Your task to perform on an android device: change timer sound Image 0: 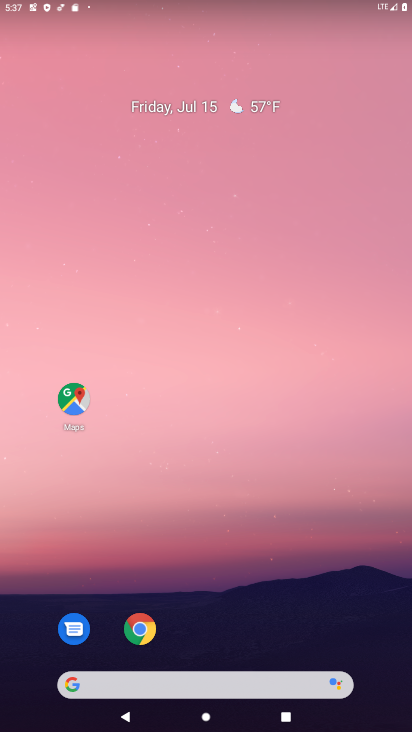
Step 0: press home button
Your task to perform on an android device: change timer sound Image 1: 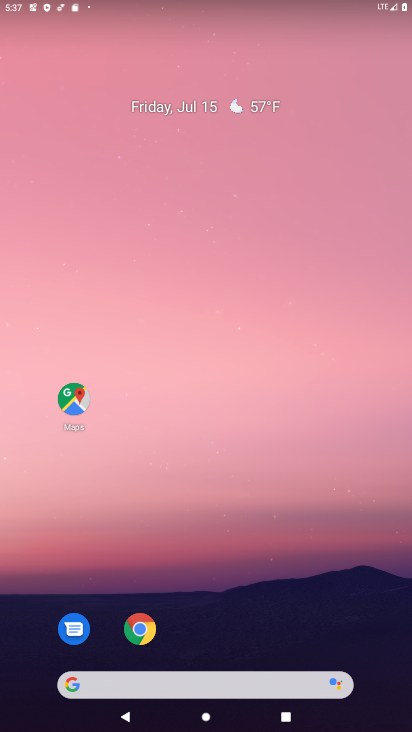
Step 1: press home button
Your task to perform on an android device: change timer sound Image 2: 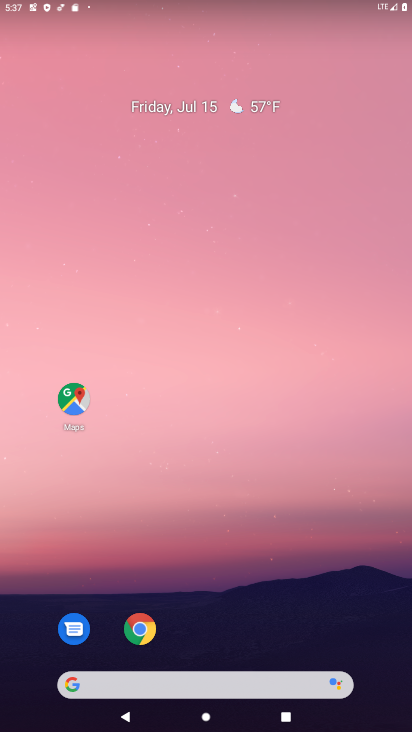
Step 2: drag from (337, 579) to (345, 8)
Your task to perform on an android device: change timer sound Image 3: 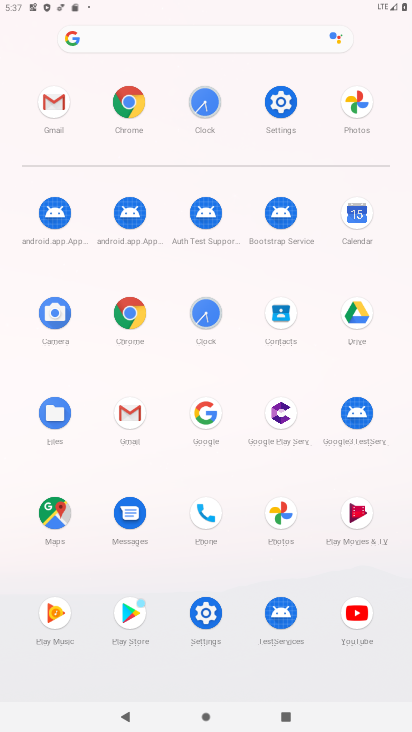
Step 3: click (199, 311)
Your task to perform on an android device: change timer sound Image 4: 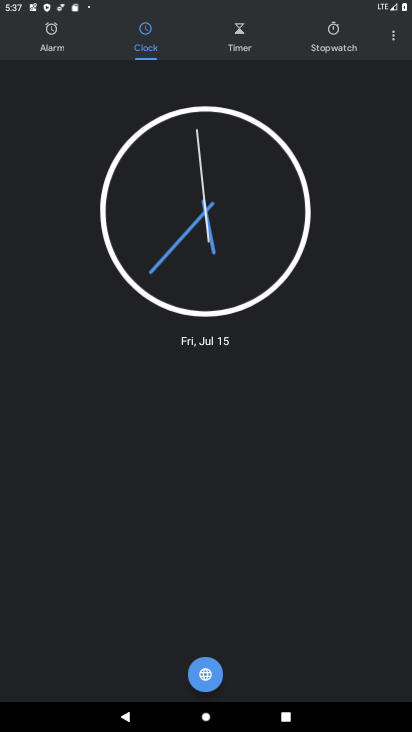
Step 4: click (396, 42)
Your task to perform on an android device: change timer sound Image 5: 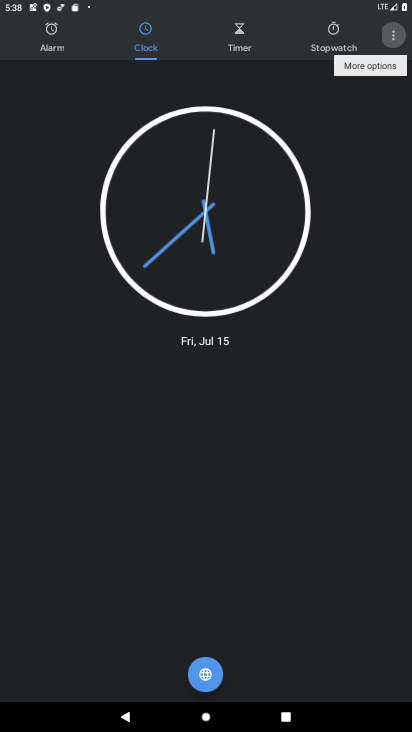
Step 5: click (396, 42)
Your task to perform on an android device: change timer sound Image 6: 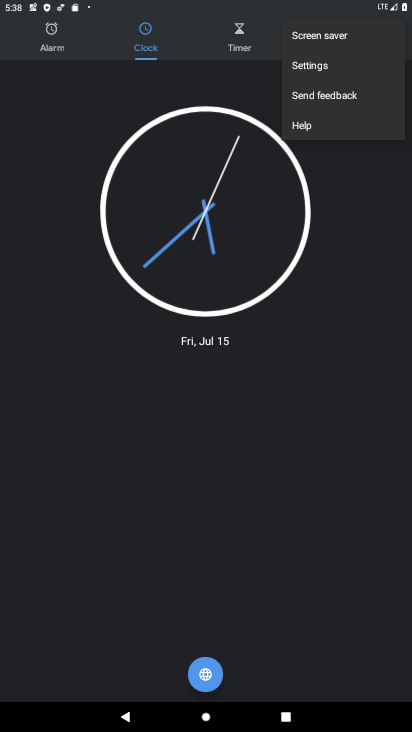
Step 6: click (315, 65)
Your task to perform on an android device: change timer sound Image 7: 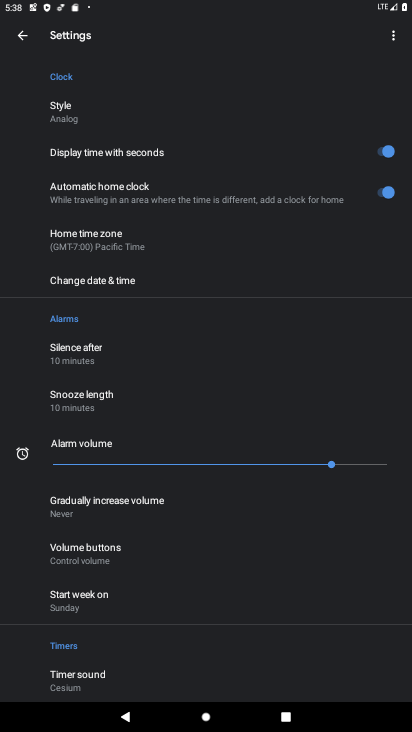
Step 7: click (73, 676)
Your task to perform on an android device: change timer sound Image 8: 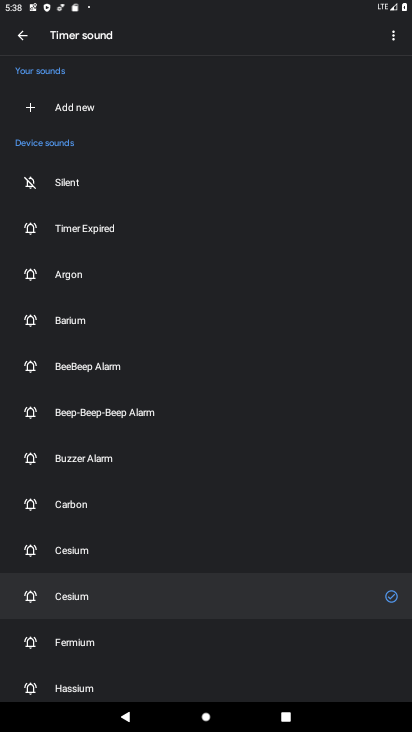
Step 8: click (71, 554)
Your task to perform on an android device: change timer sound Image 9: 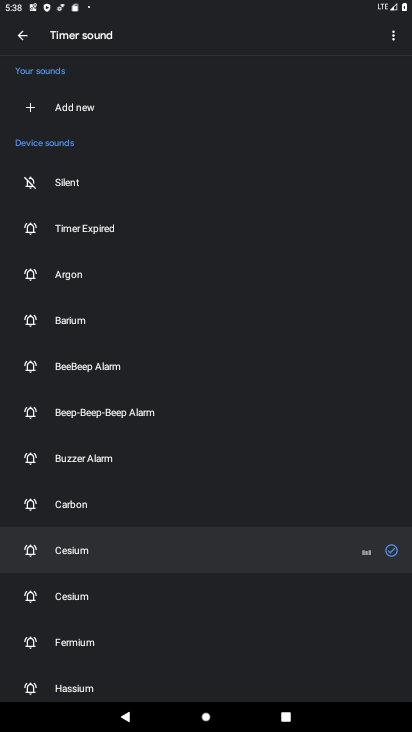
Step 9: task complete